Your task to perform on an android device: Open calendar and show me the third week of next month Image 0: 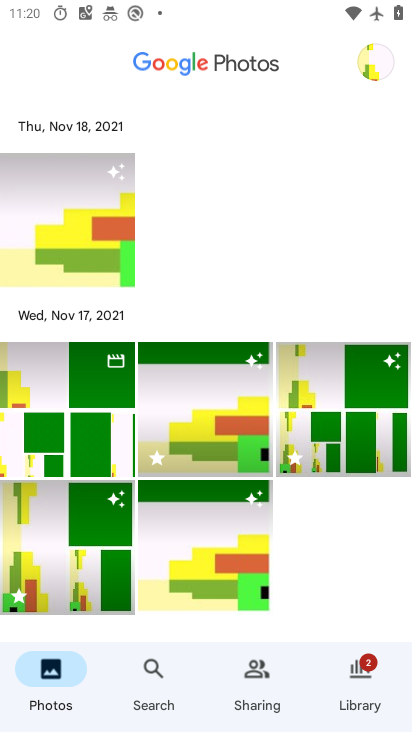
Step 0: press back button
Your task to perform on an android device: Open calendar and show me the third week of next month Image 1: 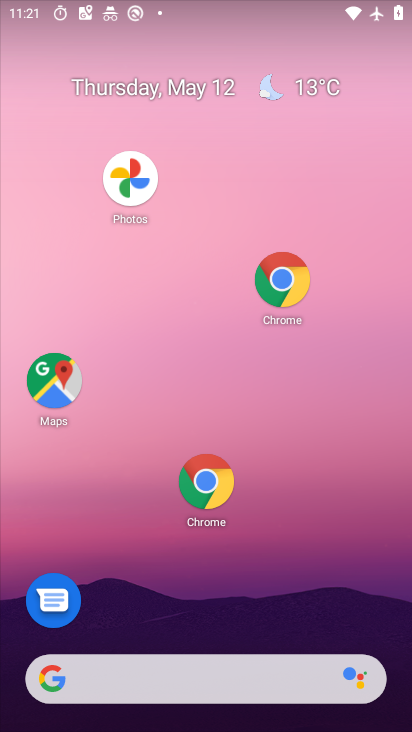
Step 1: drag from (295, 599) to (186, 225)
Your task to perform on an android device: Open calendar and show me the third week of next month Image 2: 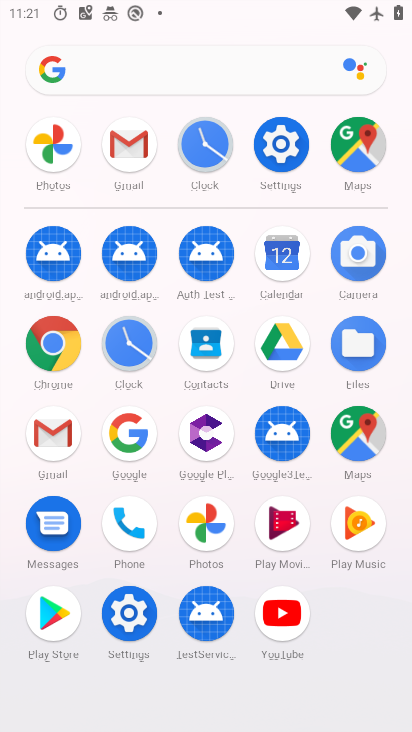
Step 2: click (133, 343)
Your task to perform on an android device: Open calendar and show me the third week of next month Image 3: 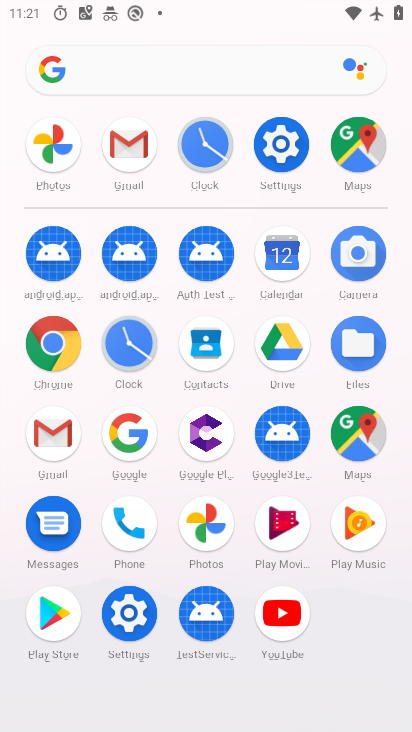
Step 3: click (133, 343)
Your task to perform on an android device: Open calendar and show me the third week of next month Image 4: 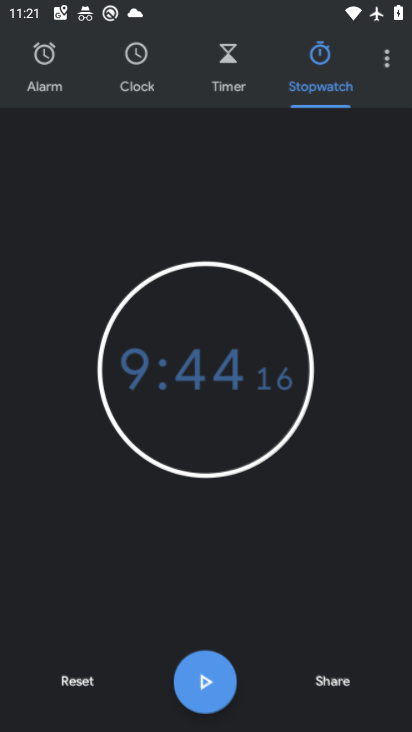
Step 4: click (133, 343)
Your task to perform on an android device: Open calendar and show me the third week of next month Image 5: 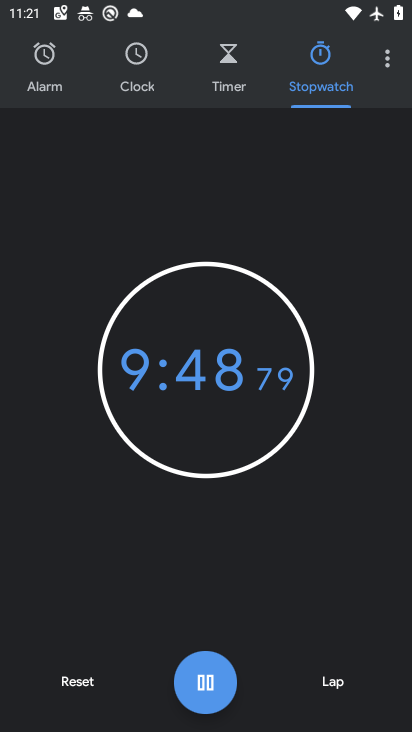
Step 5: click (211, 681)
Your task to perform on an android device: Open calendar and show me the third week of next month Image 6: 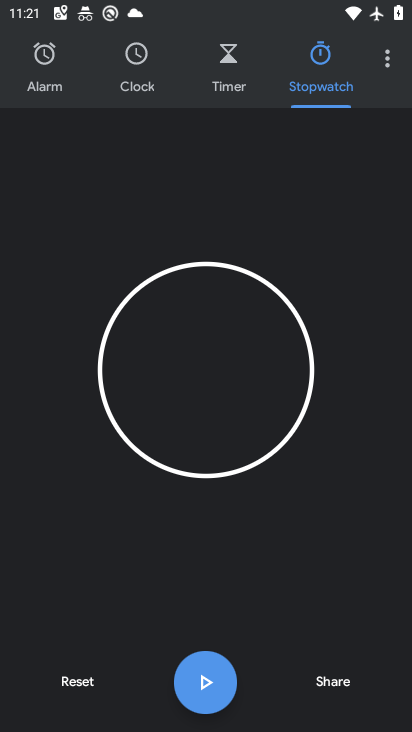
Step 6: press back button
Your task to perform on an android device: Open calendar and show me the third week of next month Image 7: 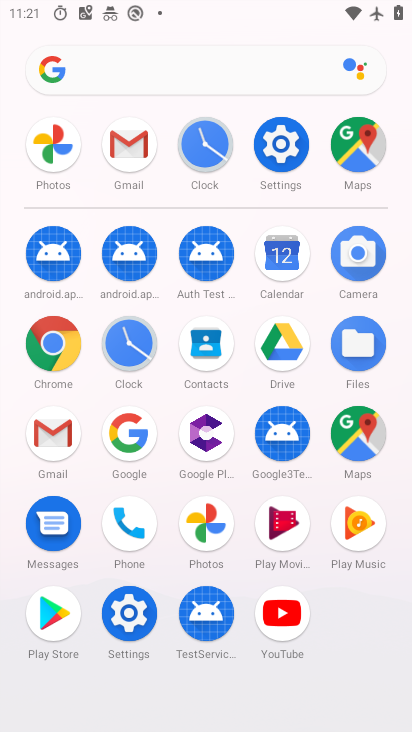
Step 7: click (277, 253)
Your task to perform on an android device: Open calendar and show me the third week of next month Image 8: 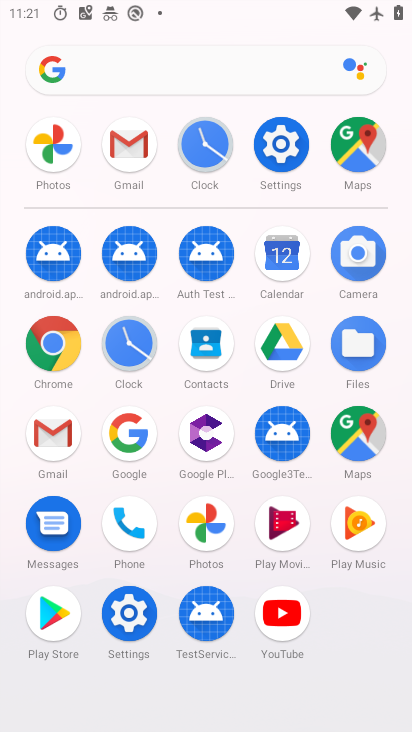
Step 8: click (277, 253)
Your task to perform on an android device: Open calendar and show me the third week of next month Image 9: 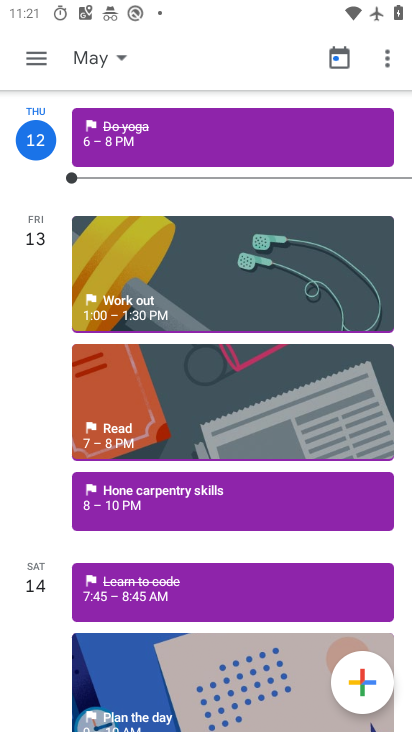
Step 9: click (120, 45)
Your task to perform on an android device: Open calendar and show me the third week of next month Image 10: 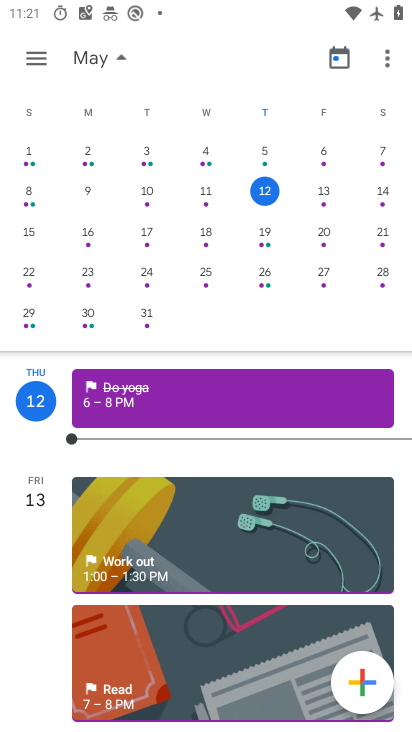
Step 10: drag from (267, 231) to (29, 309)
Your task to perform on an android device: Open calendar and show me the third week of next month Image 11: 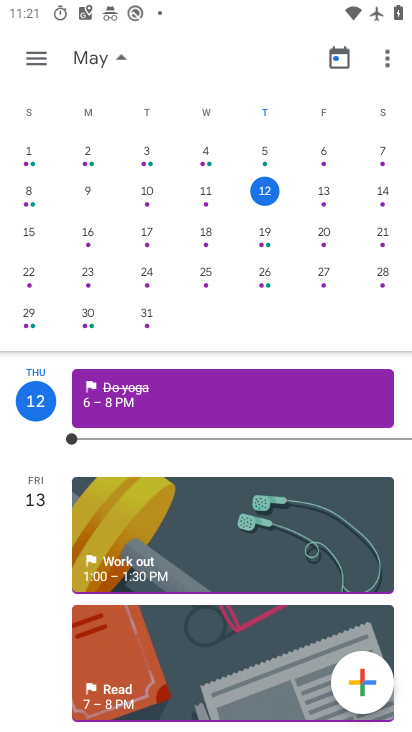
Step 11: drag from (259, 218) to (14, 269)
Your task to perform on an android device: Open calendar and show me the third week of next month Image 12: 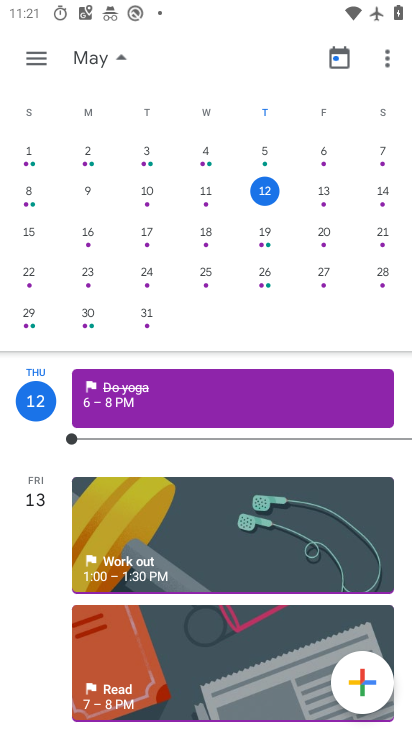
Step 12: drag from (327, 221) to (83, 212)
Your task to perform on an android device: Open calendar and show me the third week of next month Image 13: 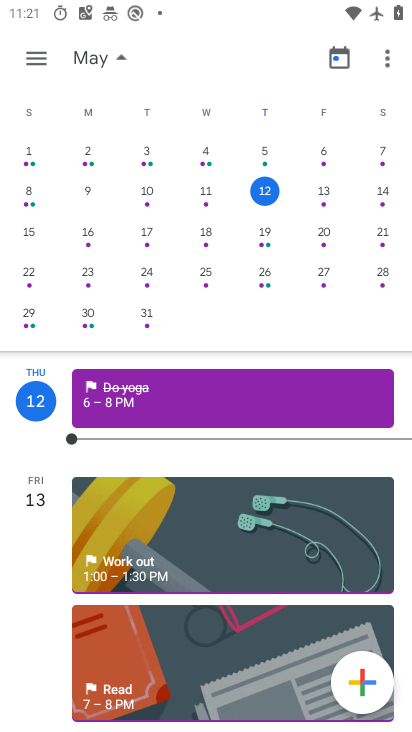
Step 13: drag from (335, 185) to (38, 116)
Your task to perform on an android device: Open calendar and show me the third week of next month Image 14: 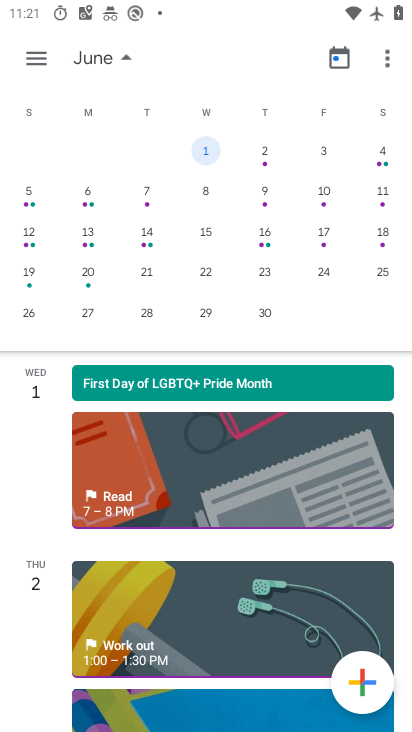
Step 14: drag from (311, 221) to (22, 261)
Your task to perform on an android device: Open calendar and show me the third week of next month Image 15: 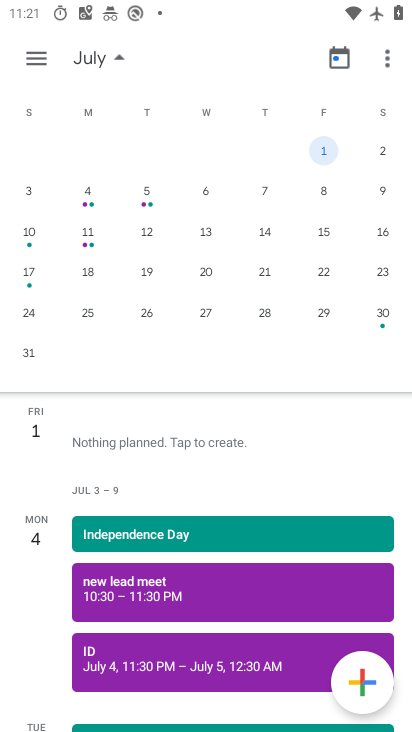
Step 15: drag from (34, 225) to (409, 360)
Your task to perform on an android device: Open calendar and show me the third week of next month Image 16: 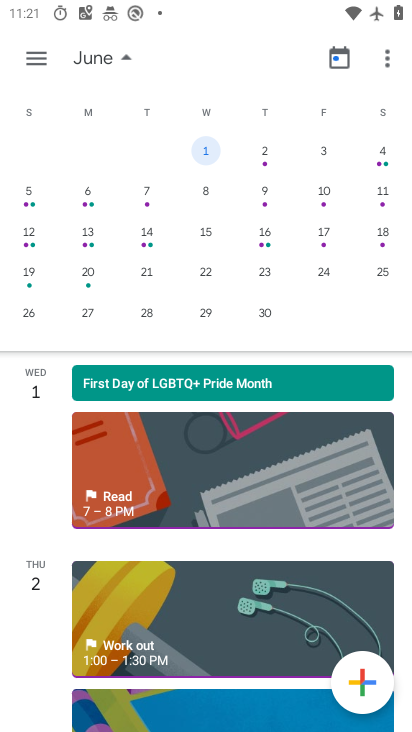
Step 16: click (215, 233)
Your task to perform on an android device: Open calendar and show me the third week of next month Image 17: 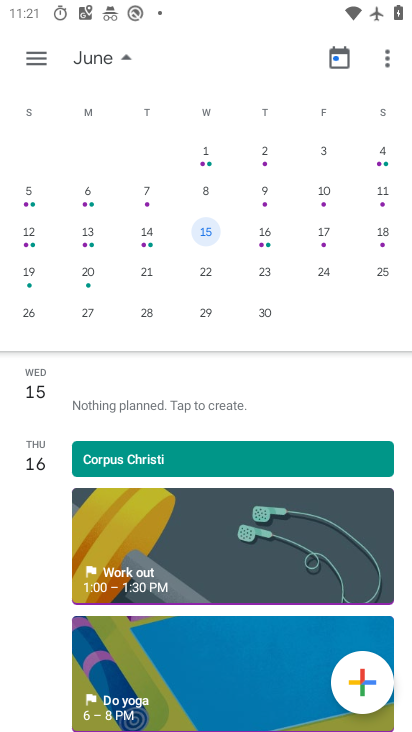
Step 17: click (207, 221)
Your task to perform on an android device: Open calendar and show me the third week of next month Image 18: 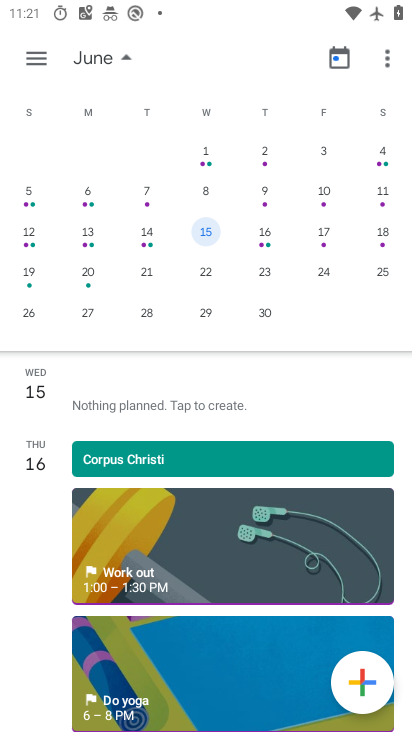
Step 18: click (207, 221)
Your task to perform on an android device: Open calendar and show me the third week of next month Image 19: 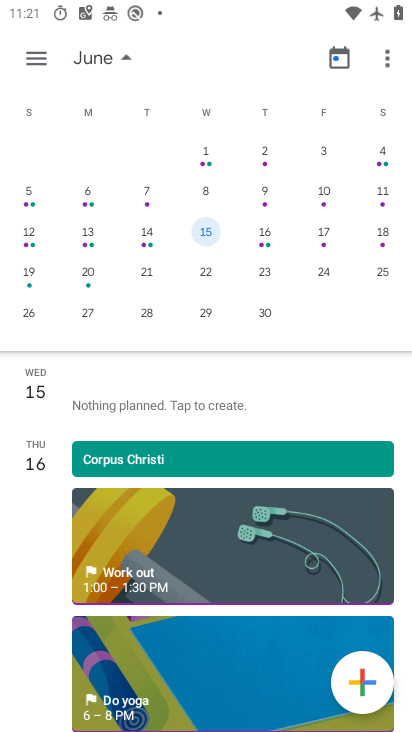
Step 19: task complete